Your task to perform on an android device: Search for sushi restaurants on Maps Image 0: 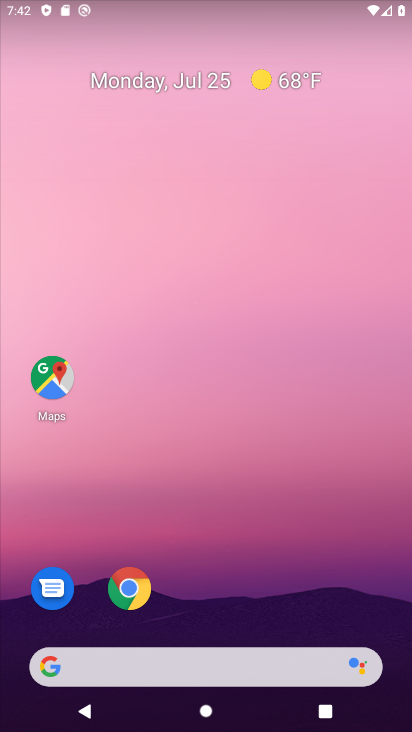
Step 0: drag from (347, 601) to (347, 145)
Your task to perform on an android device: Search for sushi restaurants on Maps Image 1: 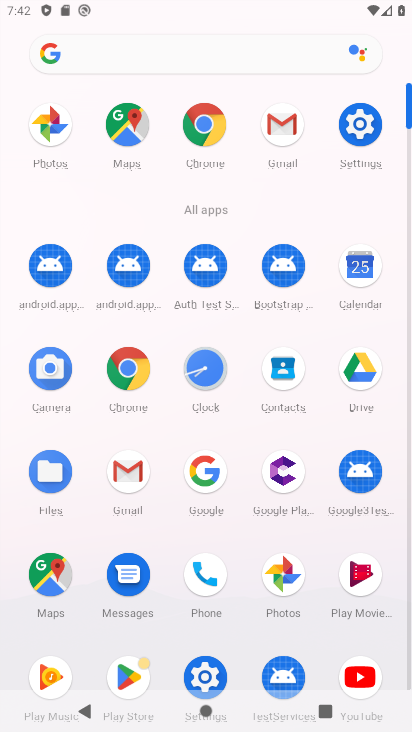
Step 1: click (133, 127)
Your task to perform on an android device: Search for sushi restaurants on Maps Image 2: 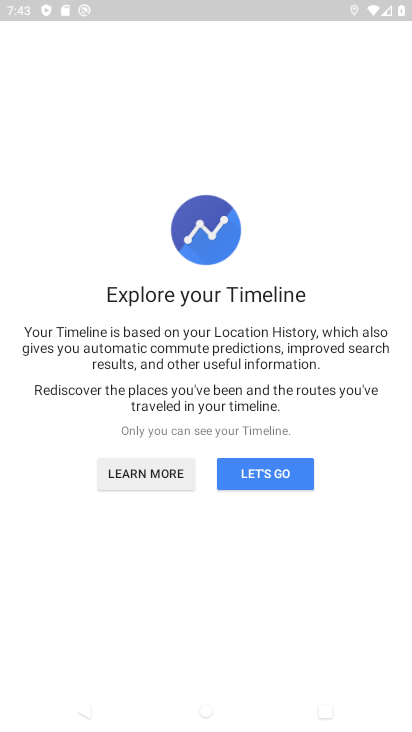
Step 2: press back button
Your task to perform on an android device: Search for sushi restaurants on Maps Image 3: 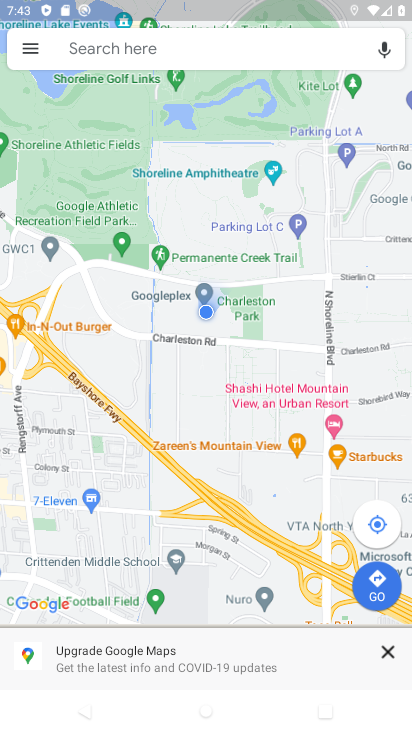
Step 3: click (121, 45)
Your task to perform on an android device: Search for sushi restaurants on Maps Image 4: 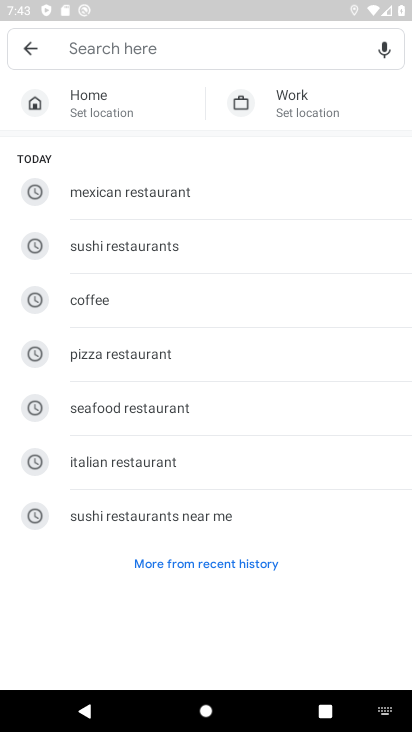
Step 4: type "sushi restaurants"
Your task to perform on an android device: Search for sushi restaurants on Maps Image 5: 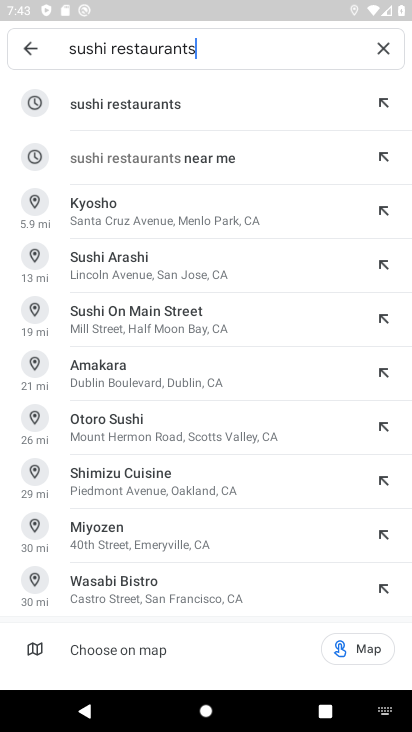
Step 5: click (231, 106)
Your task to perform on an android device: Search for sushi restaurants on Maps Image 6: 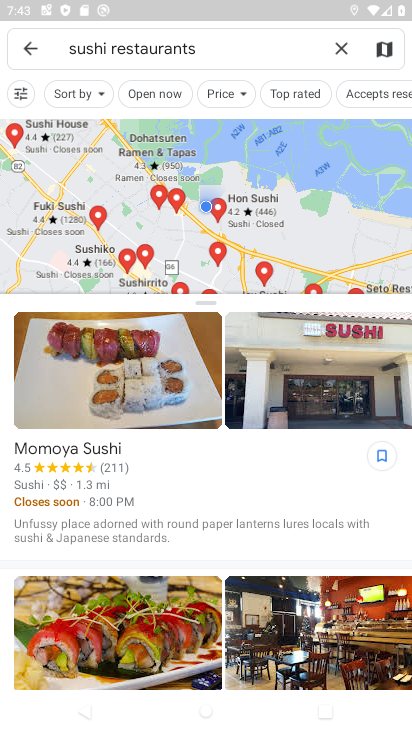
Step 6: task complete